Your task to perform on an android device: turn notification dots on Image 0: 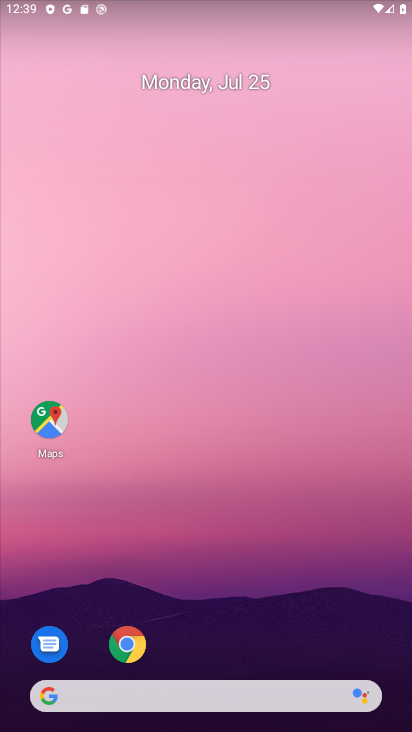
Step 0: drag from (260, 663) to (245, 150)
Your task to perform on an android device: turn notification dots on Image 1: 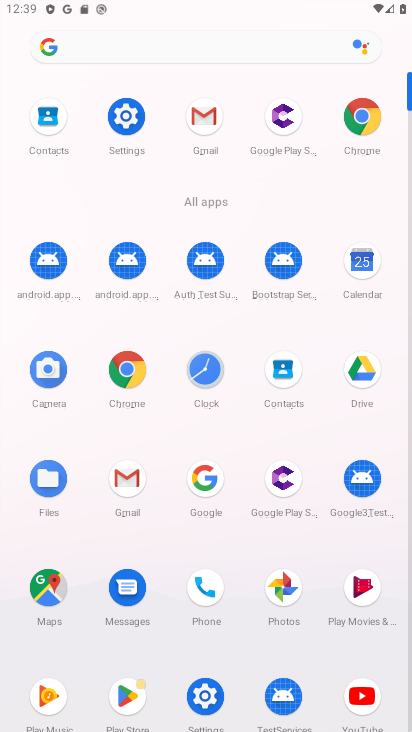
Step 1: click (121, 113)
Your task to perform on an android device: turn notification dots on Image 2: 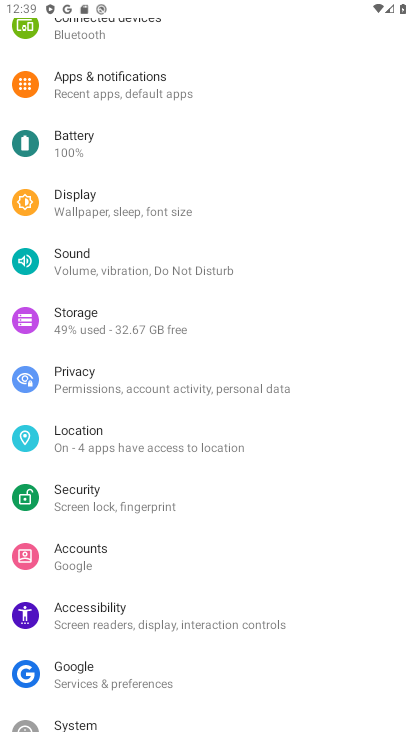
Step 2: click (123, 92)
Your task to perform on an android device: turn notification dots on Image 3: 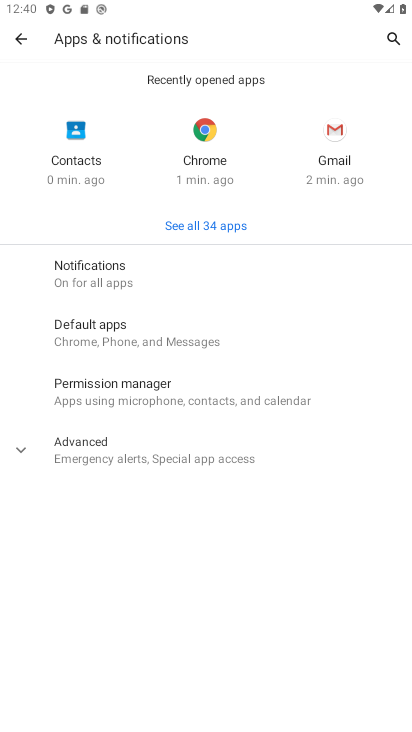
Step 3: click (165, 275)
Your task to perform on an android device: turn notification dots on Image 4: 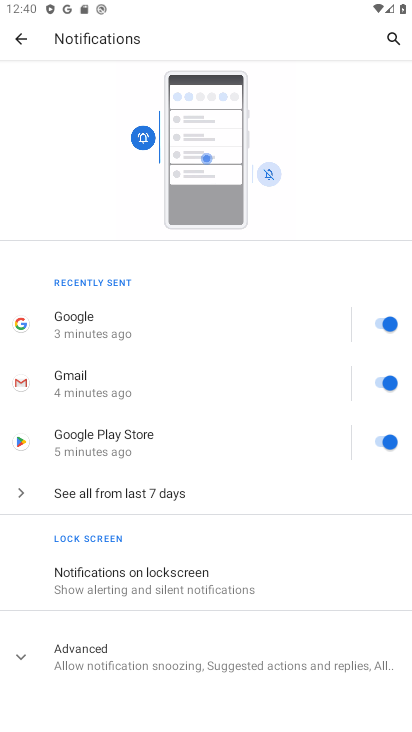
Step 4: click (145, 647)
Your task to perform on an android device: turn notification dots on Image 5: 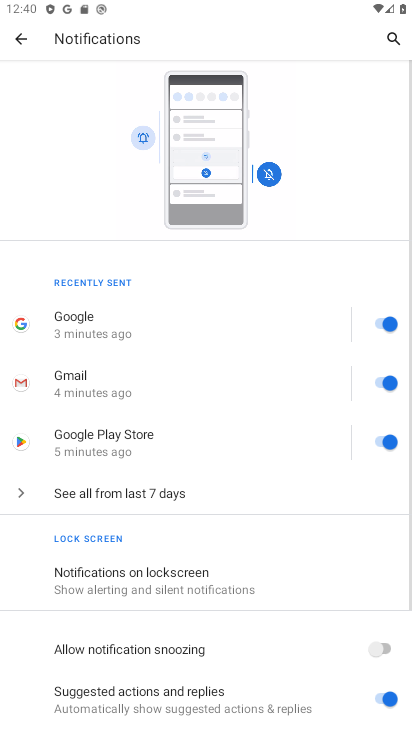
Step 5: task complete